Your task to perform on an android device: open a new tab in the chrome app Image 0: 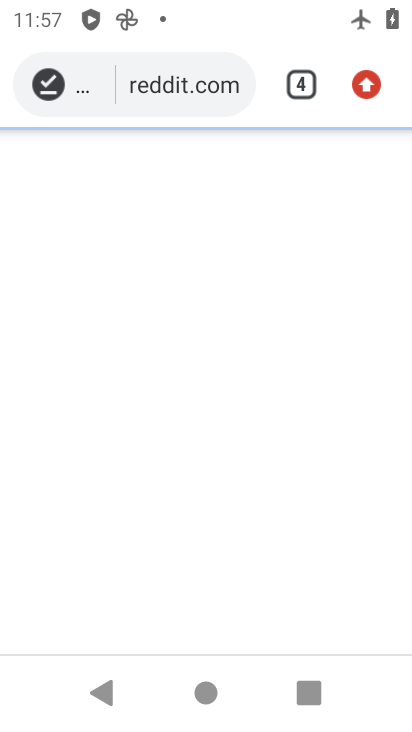
Step 0: press home button
Your task to perform on an android device: open a new tab in the chrome app Image 1: 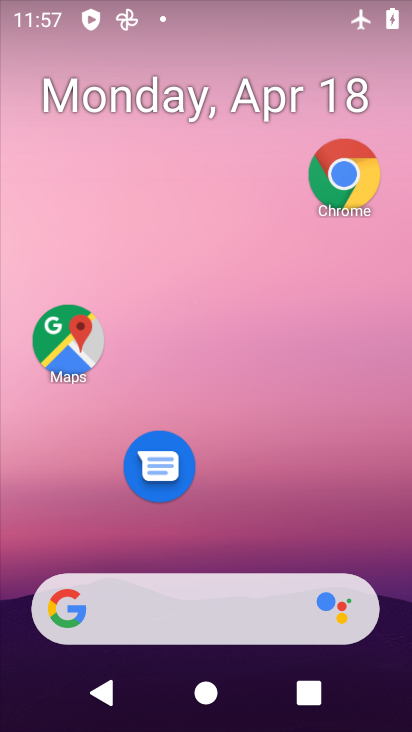
Step 1: click (353, 185)
Your task to perform on an android device: open a new tab in the chrome app Image 2: 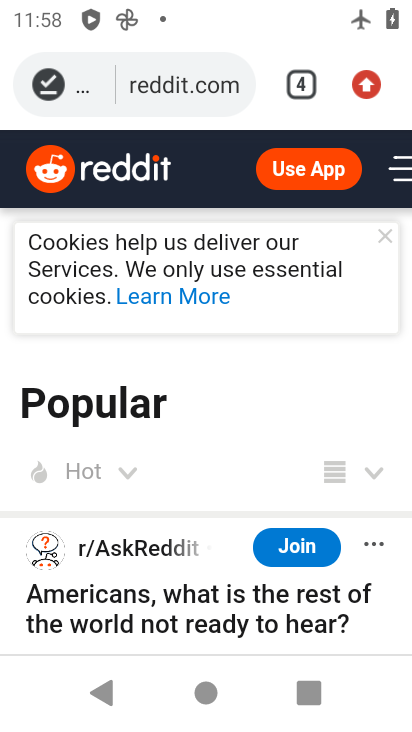
Step 2: drag from (221, 81) to (243, 141)
Your task to perform on an android device: open a new tab in the chrome app Image 3: 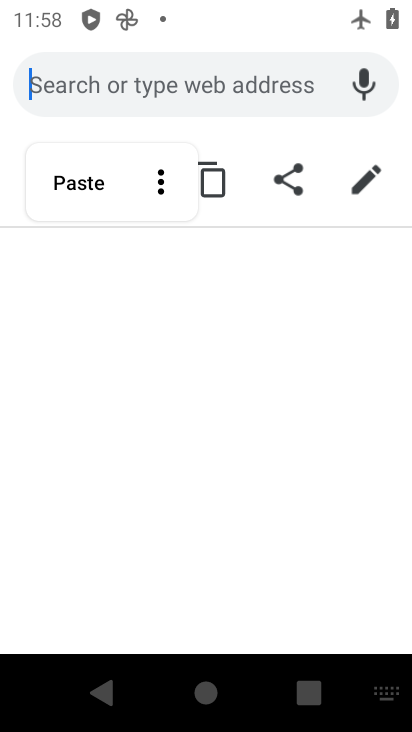
Step 3: press back button
Your task to perform on an android device: open a new tab in the chrome app Image 4: 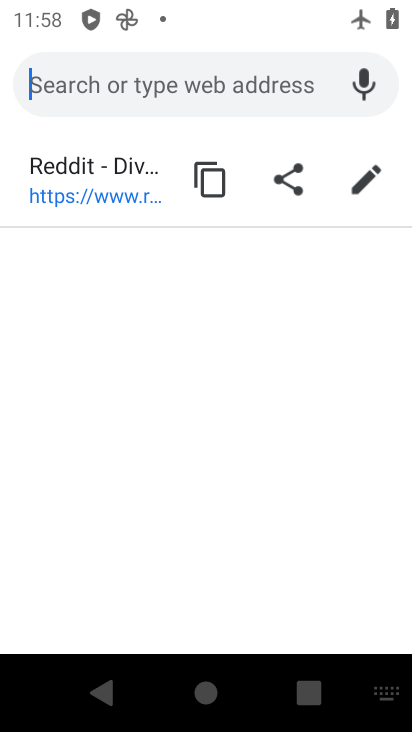
Step 4: press back button
Your task to perform on an android device: open a new tab in the chrome app Image 5: 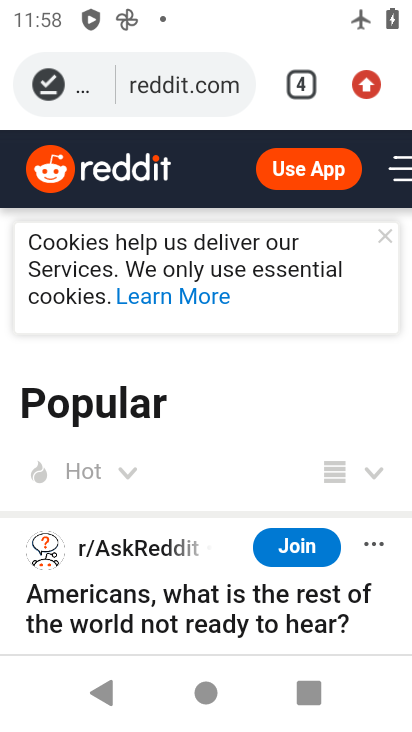
Step 5: drag from (311, 89) to (318, 156)
Your task to perform on an android device: open a new tab in the chrome app Image 6: 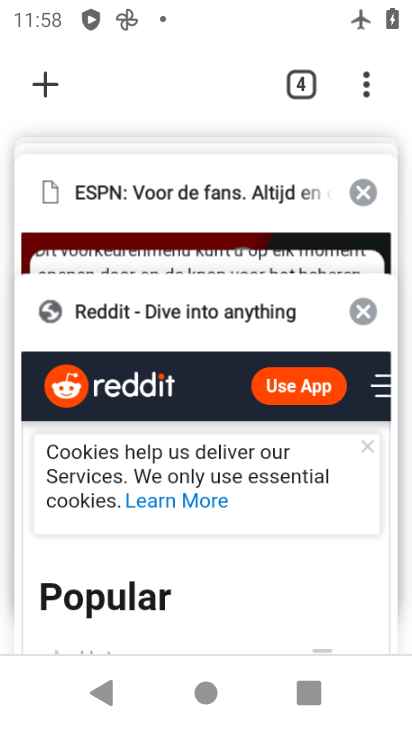
Step 6: click (68, 83)
Your task to perform on an android device: open a new tab in the chrome app Image 7: 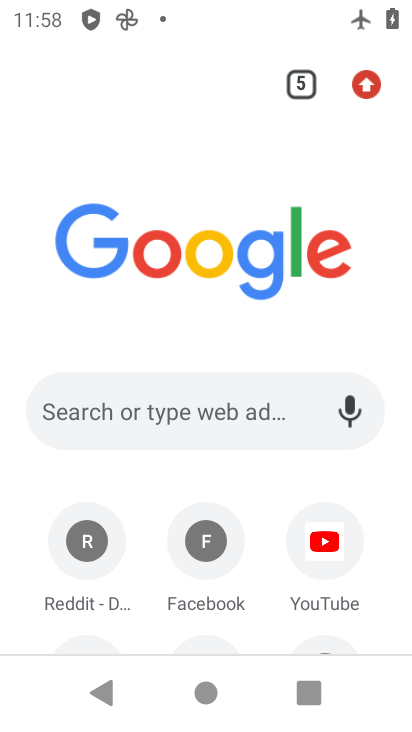
Step 7: click (68, 83)
Your task to perform on an android device: open a new tab in the chrome app Image 8: 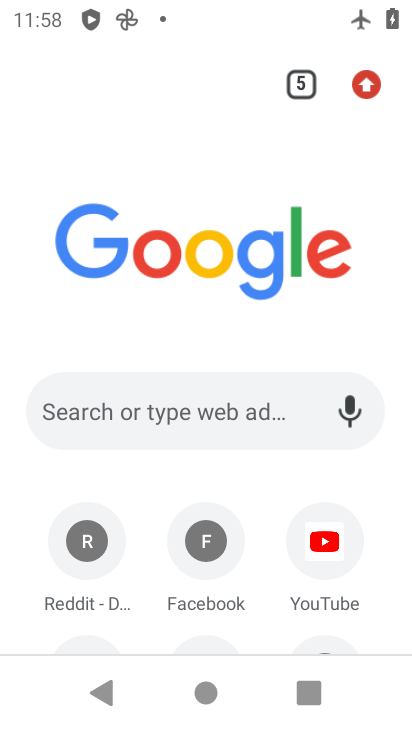
Step 8: task complete